Your task to perform on an android device: What's the weather going to be this weekend? Image 0: 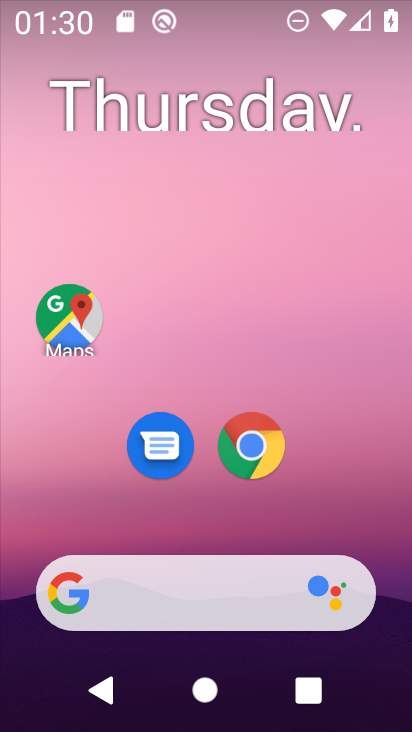
Step 0: click (194, 599)
Your task to perform on an android device: What's the weather going to be this weekend? Image 1: 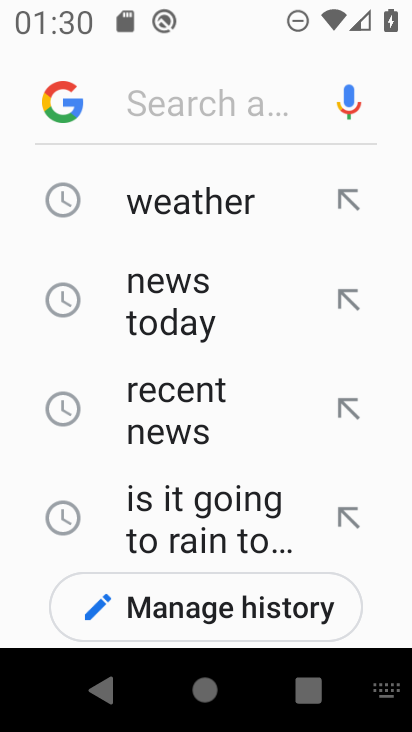
Step 1: click (220, 204)
Your task to perform on an android device: What's the weather going to be this weekend? Image 2: 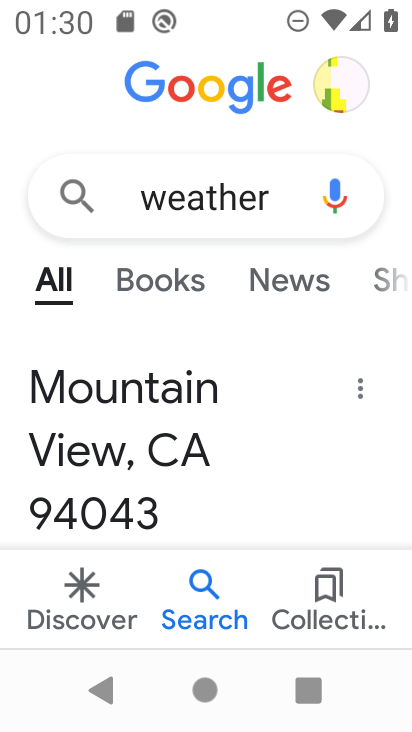
Step 2: drag from (228, 465) to (229, 10)
Your task to perform on an android device: What's the weather going to be this weekend? Image 3: 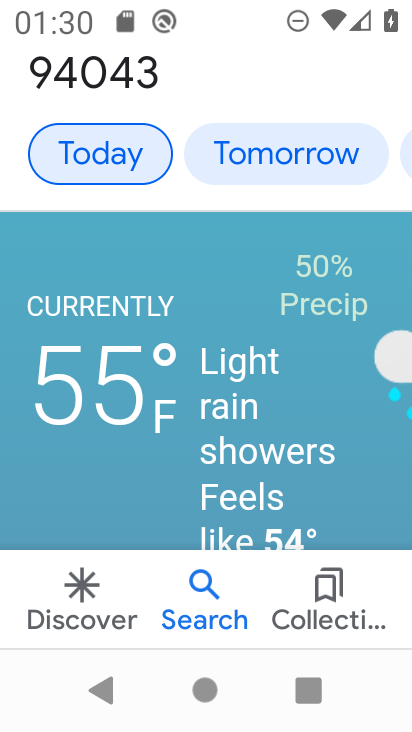
Step 3: click (409, 166)
Your task to perform on an android device: What's the weather going to be this weekend? Image 4: 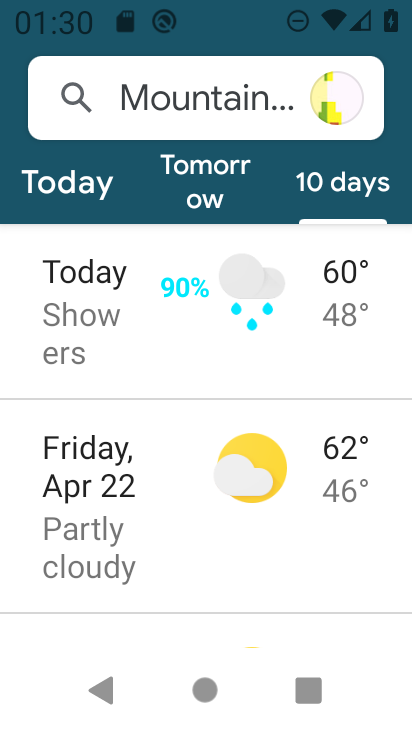
Step 4: task complete